Your task to perform on an android device: Open eBay Image 0: 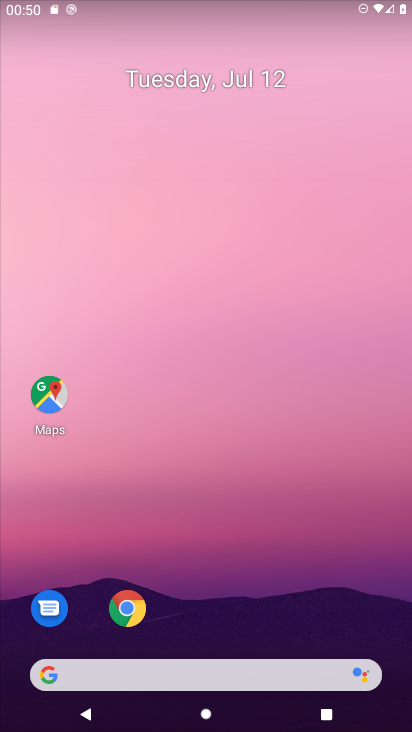
Step 0: drag from (195, 661) to (148, 88)
Your task to perform on an android device: Open eBay Image 1: 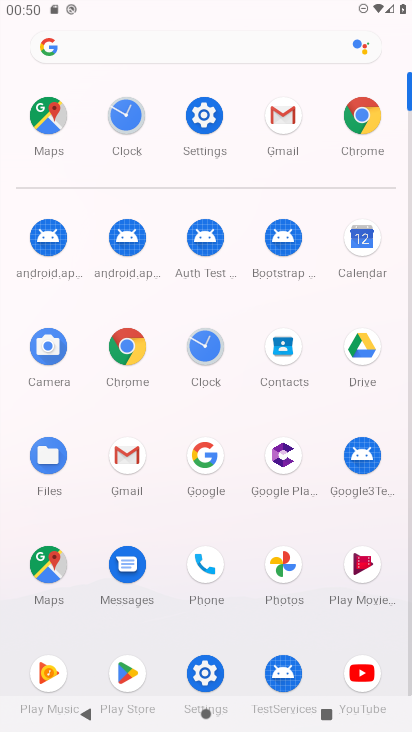
Step 1: click (361, 118)
Your task to perform on an android device: Open eBay Image 2: 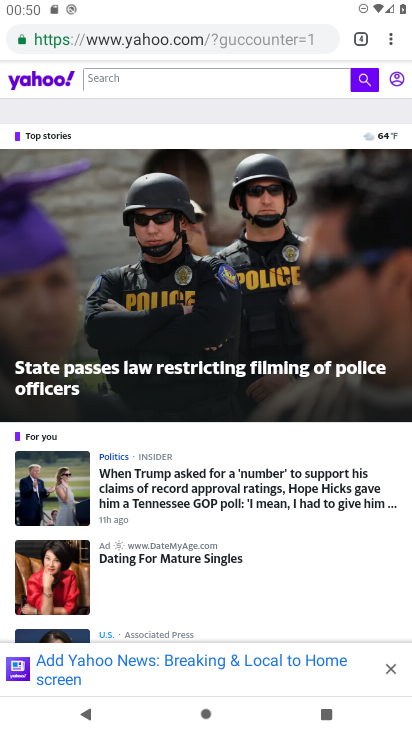
Step 2: click (349, 26)
Your task to perform on an android device: Open eBay Image 3: 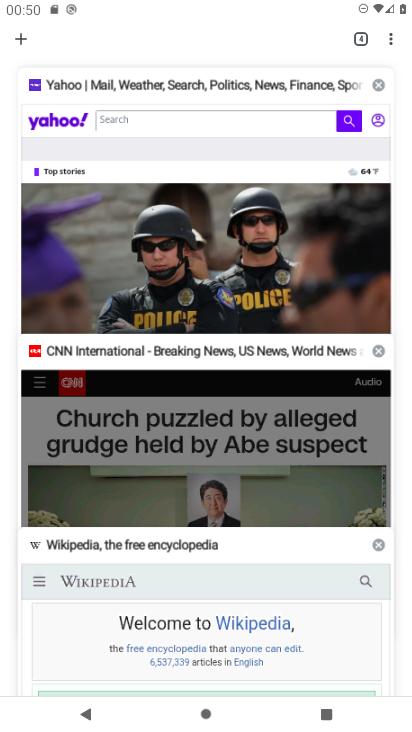
Step 3: drag from (354, 29) to (22, 32)
Your task to perform on an android device: Open eBay Image 4: 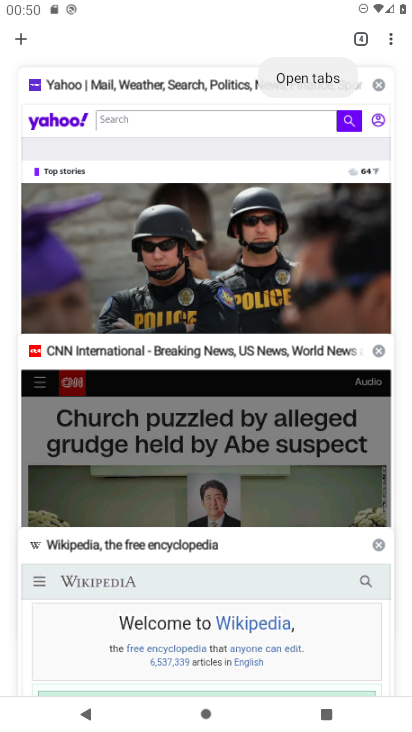
Step 4: click (17, 32)
Your task to perform on an android device: Open eBay Image 5: 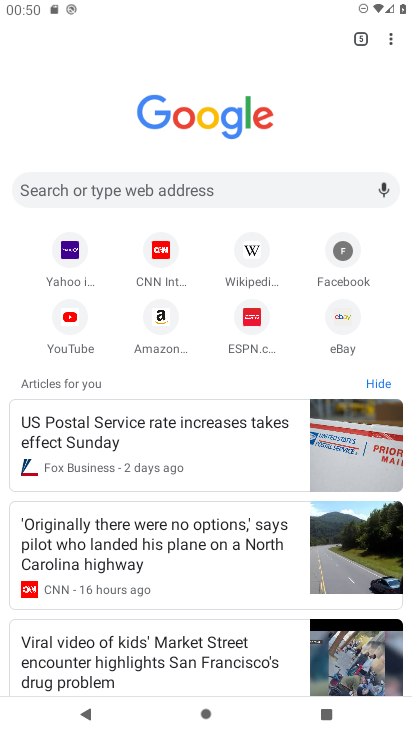
Step 5: click (334, 321)
Your task to perform on an android device: Open eBay Image 6: 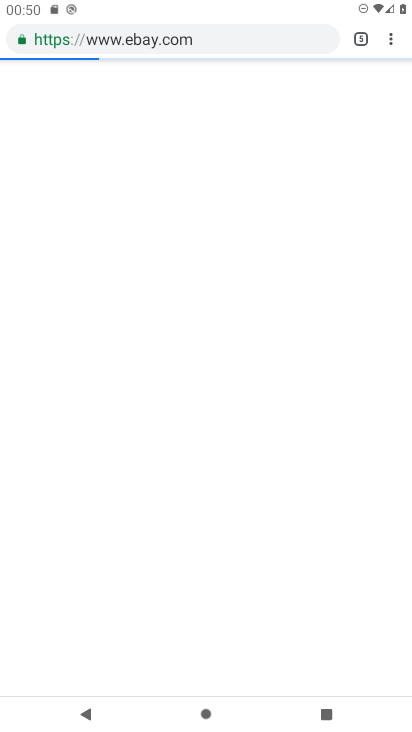
Step 6: task complete